Your task to perform on an android device: open app "Adobe Acrobat Reader: Edit PDF" (install if not already installed) and go to login screen Image 0: 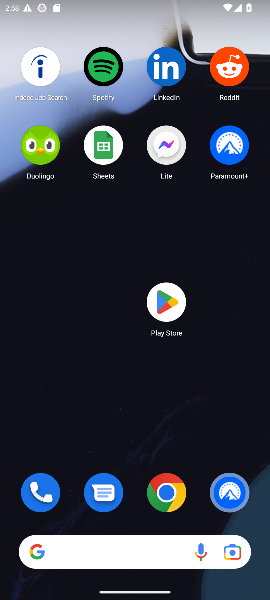
Step 0: drag from (139, 526) to (138, 228)
Your task to perform on an android device: open app "Adobe Acrobat Reader: Edit PDF" (install if not already installed) and go to login screen Image 1: 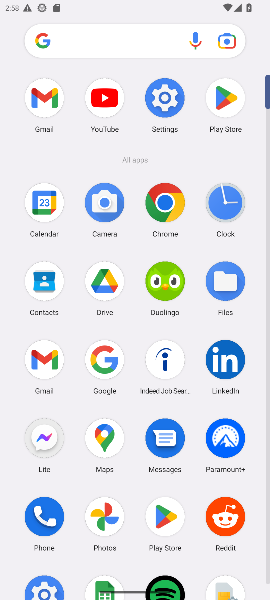
Step 1: click (221, 121)
Your task to perform on an android device: open app "Adobe Acrobat Reader: Edit PDF" (install if not already installed) and go to login screen Image 2: 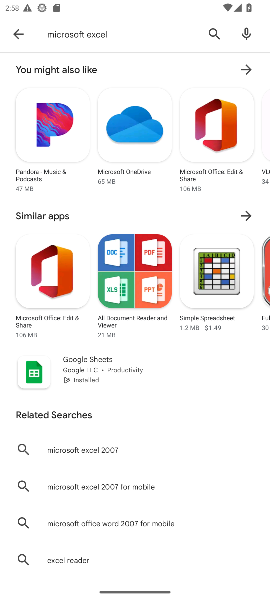
Step 2: click (214, 37)
Your task to perform on an android device: open app "Adobe Acrobat Reader: Edit PDF" (install if not already installed) and go to login screen Image 3: 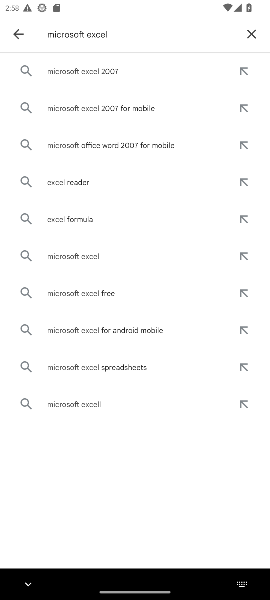
Step 3: click (255, 39)
Your task to perform on an android device: open app "Adobe Acrobat Reader: Edit PDF" (install if not already installed) and go to login screen Image 4: 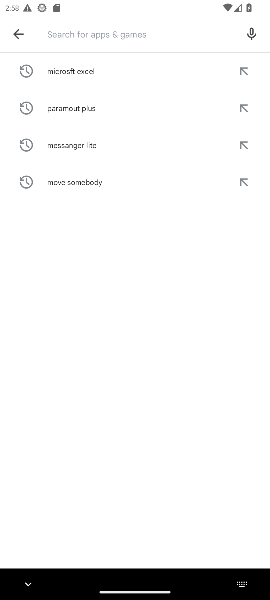
Step 4: type "adobe"
Your task to perform on an android device: open app "Adobe Acrobat Reader: Edit PDF" (install if not already installed) and go to login screen Image 5: 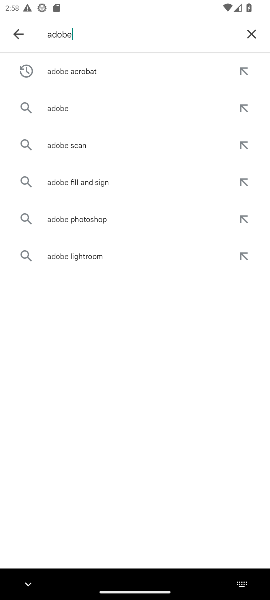
Step 5: click (120, 64)
Your task to perform on an android device: open app "Adobe Acrobat Reader: Edit PDF" (install if not already installed) and go to login screen Image 6: 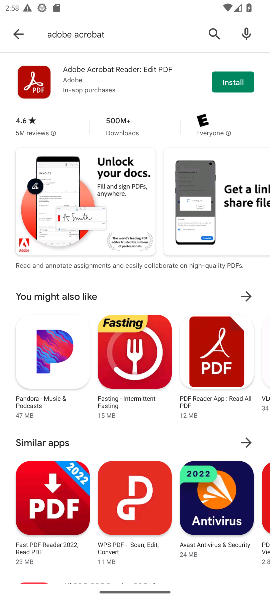
Step 6: click (234, 86)
Your task to perform on an android device: open app "Adobe Acrobat Reader: Edit PDF" (install if not already installed) and go to login screen Image 7: 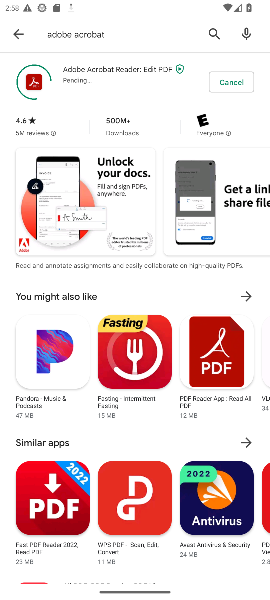
Step 7: task complete